Your task to perform on an android device: Show the shopping cart on costco. Image 0: 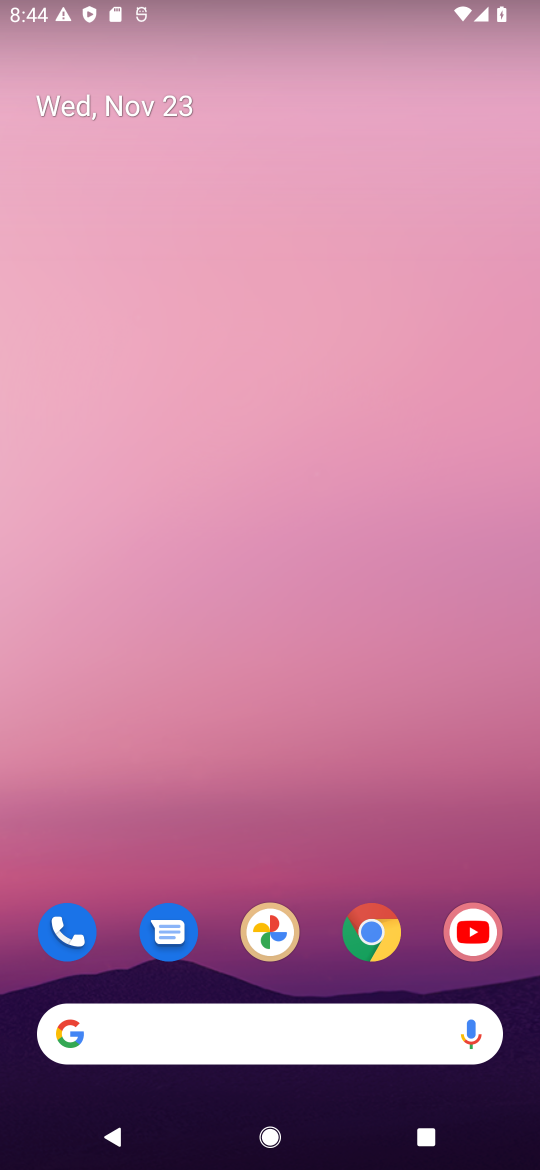
Step 0: click (386, 954)
Your task to perform on an android device: Show the shopping cart on costco. Image 1: 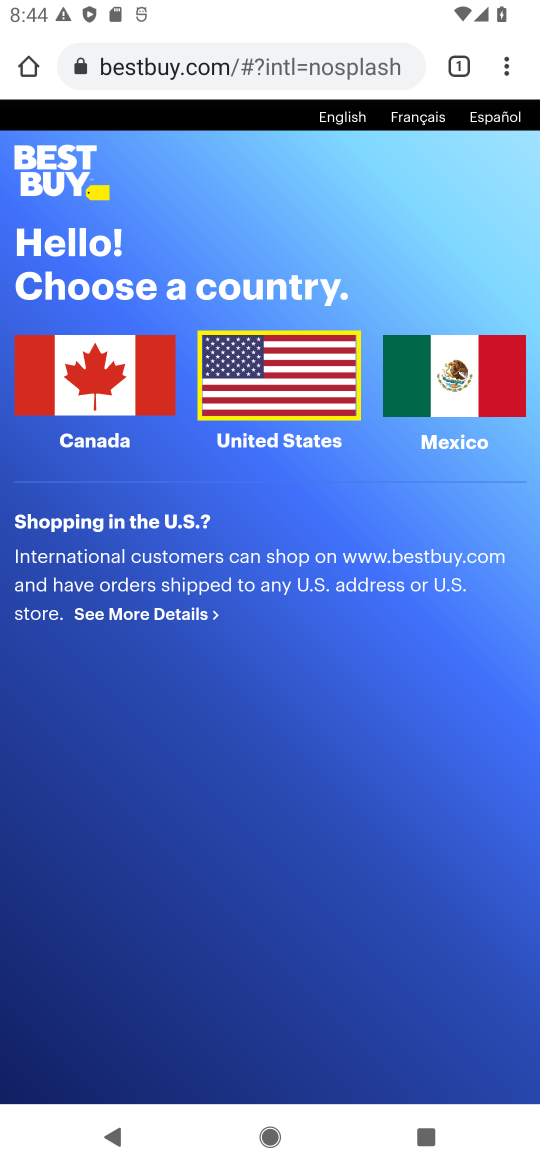
Step 1: click (221, 72)
Your task to perform on an android device: Show the shopping cart on costco. Image 2: 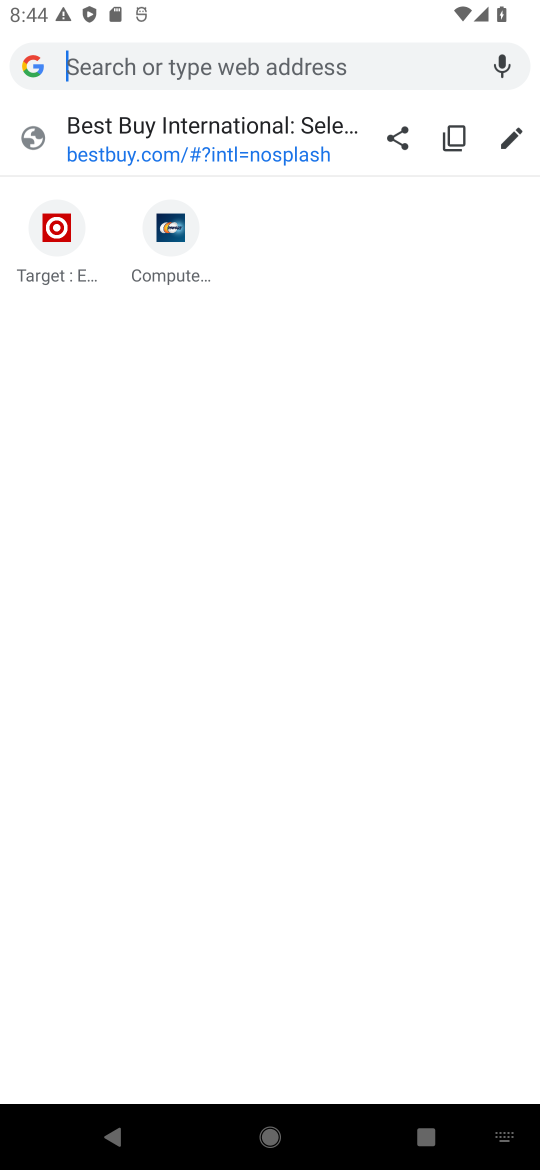
Step 2: type "costco"
Your task to perform on an android device: Show the shopping cart on costco. Image 3: 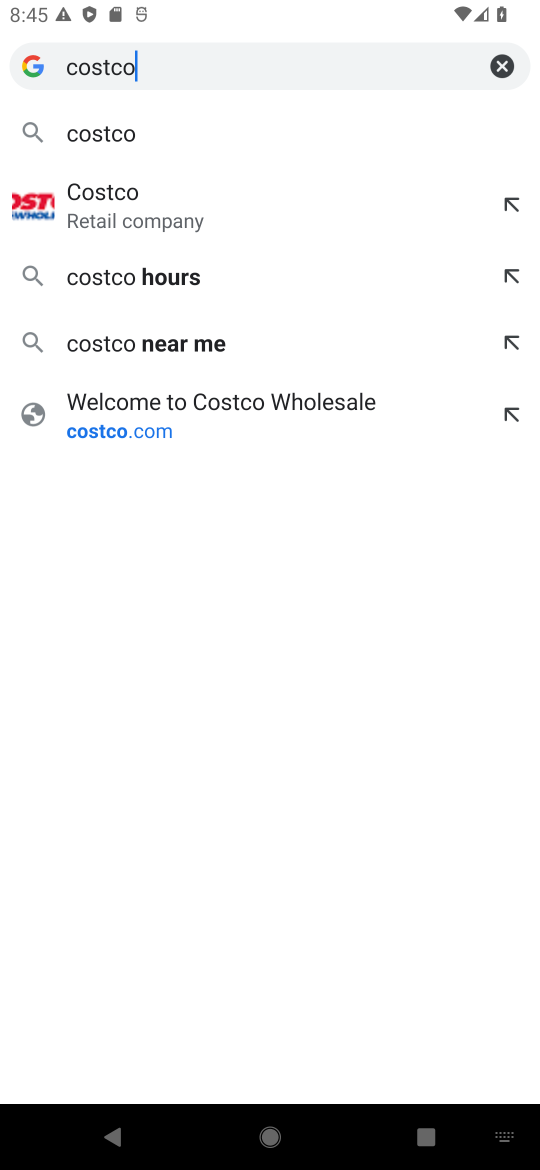
Step 3: click (216, 418)
Your task to perform on an android device: Show the shopping cart on costco. Image 4: 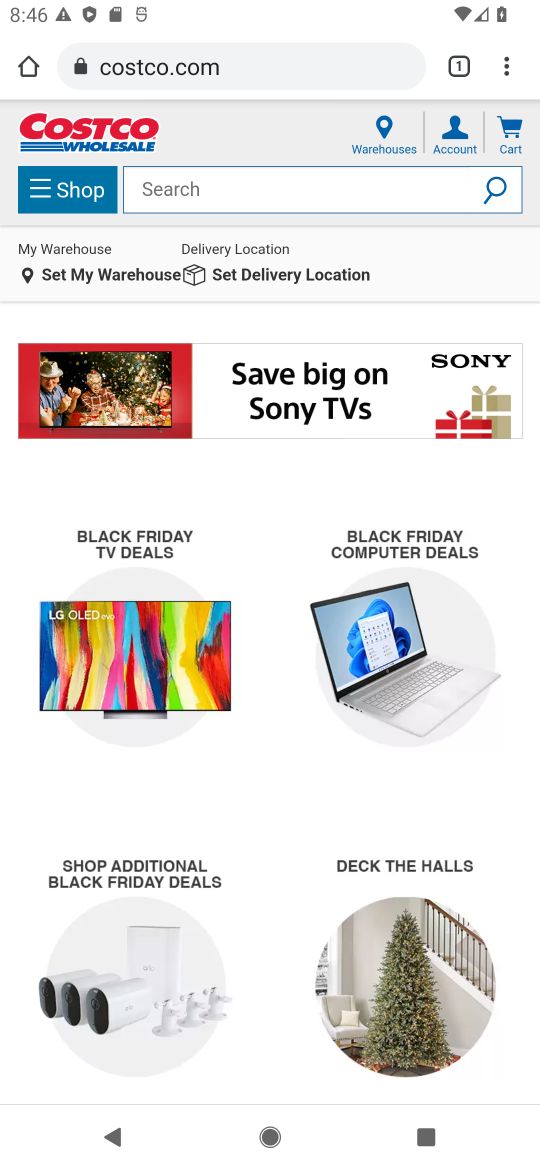
Step 4: click (517, 133)
Your task to perform on an android device: Show the shopping cart on costco. Image 5: 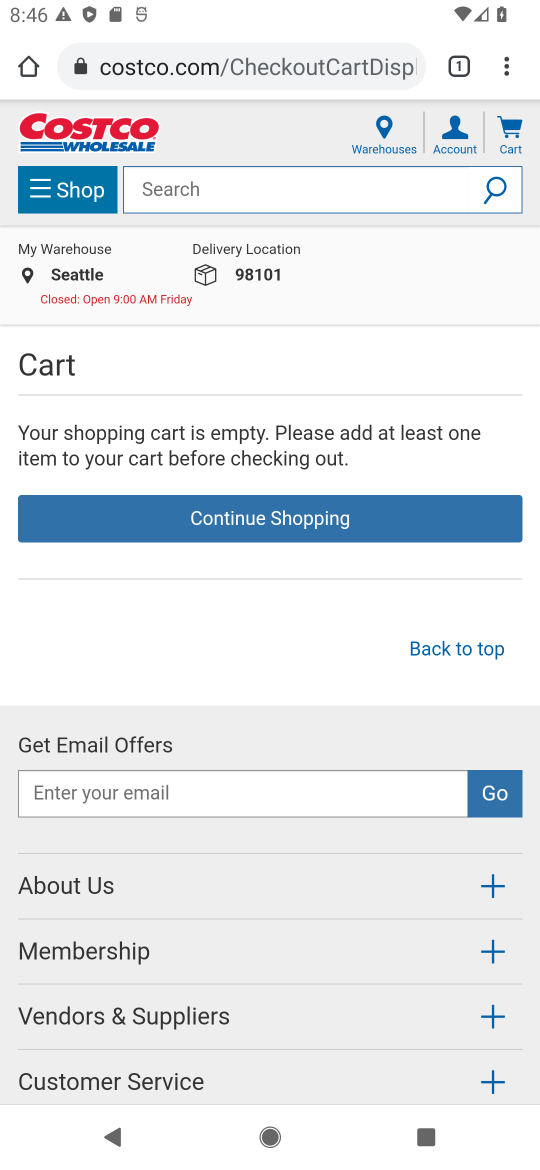
Step 5: task complete